Your task to perform on an android device: Open Chrome and go to settings Image 0: 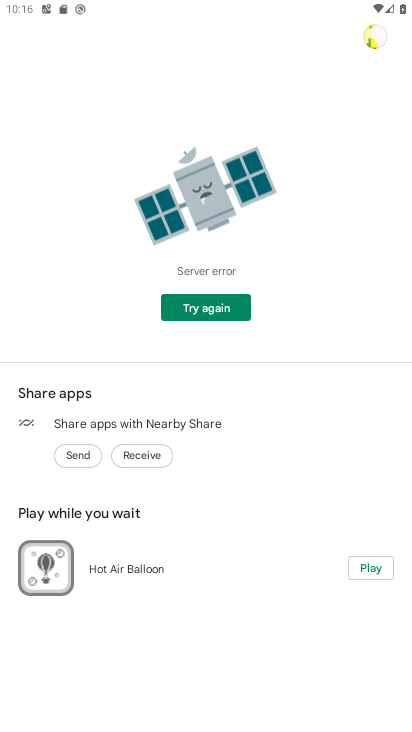
Step 0: press home button
Your task to perform on an android device: Open Chrome and go to settings Image 1: 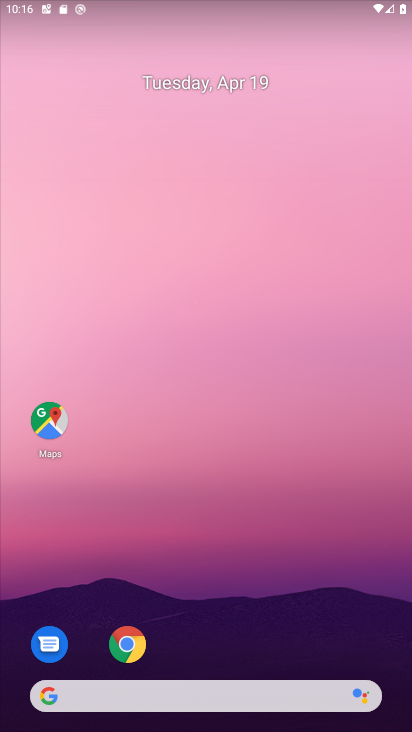
Step 1: click (125, 643)
Your task to perform on an android device: Open Chrome and go to settings Image 2: 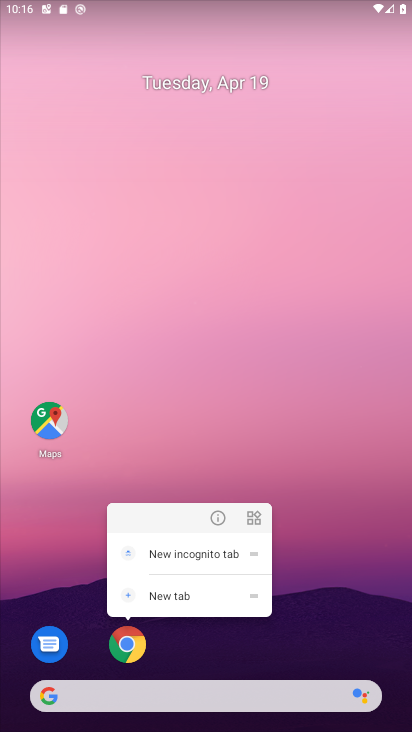
Step 2: click (121, 648)
Your task to perform on an android device: Open Chrome and go to settings Image 3: 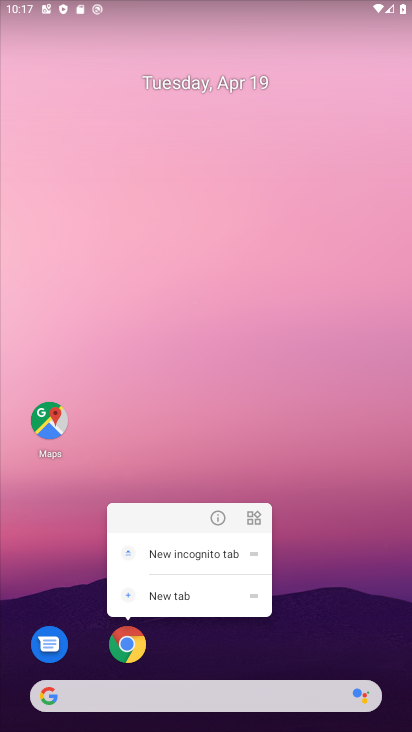
Step 3: click (124, 644)
Your task to perform on an android device: Open Chrome and go to settings Image 4: 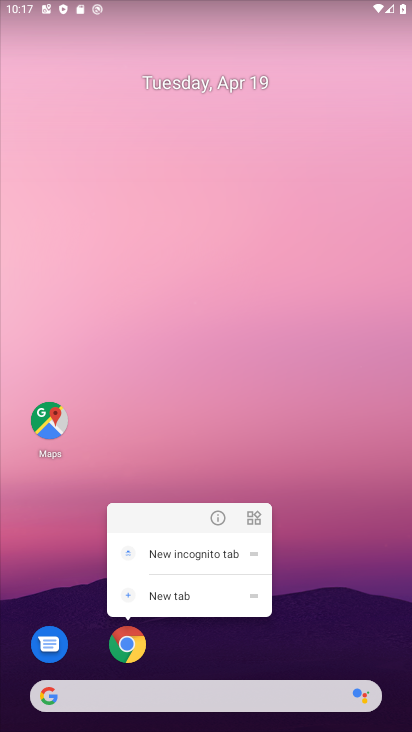
Step 4: click (124, 644)
Your task to perform on an android device: Open Chrome and go to settings Image 5: 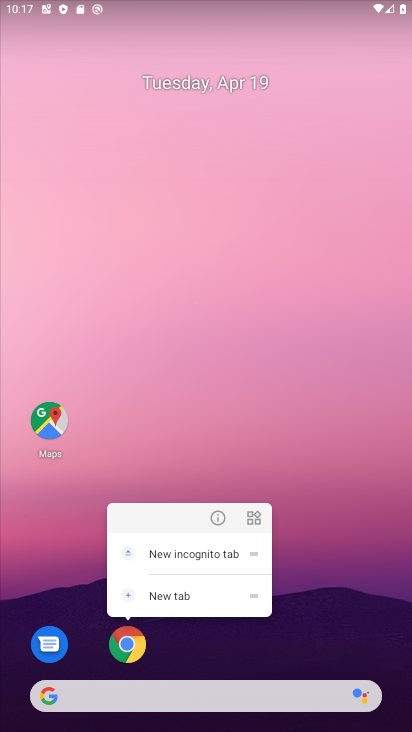
Step 5: click (127, 647)
Your task to perform on an android device: Open Chrome and go to settings Image 6: 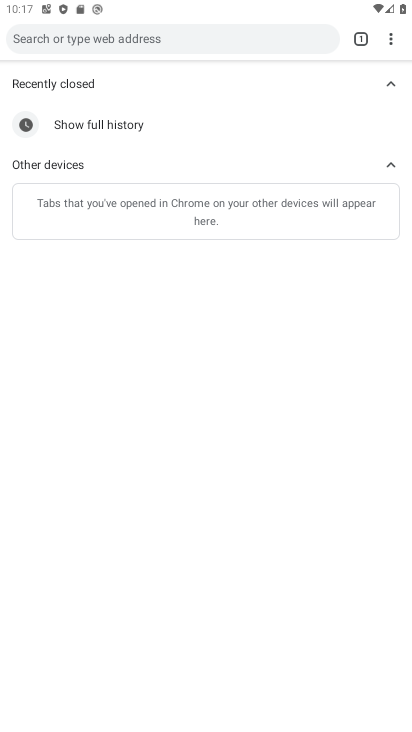
Step 6: click (393, 47)
Your task to perform on an android device: Open Chrome and go to settings Image 7: 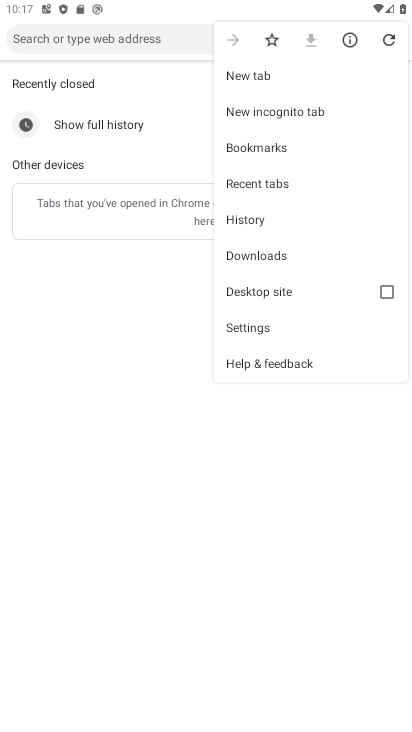
Step 7: click (278, 327)
Your task to perform on an android device: Open Chrome and go to settings Image 8: 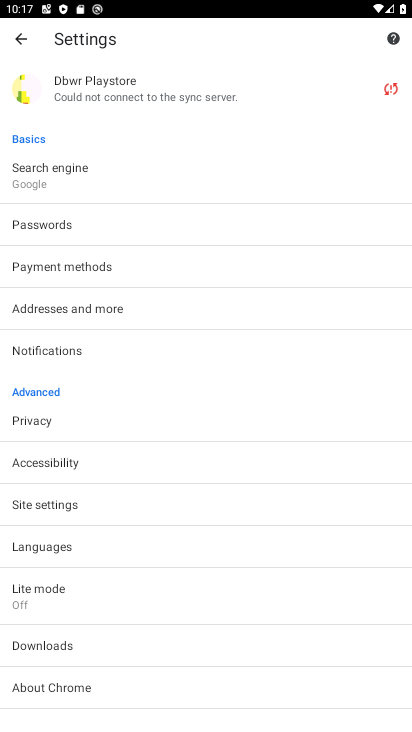
Step 8: task complete